Your task to perform on an android device: turn vacation reply on in the gmail app Image 0: 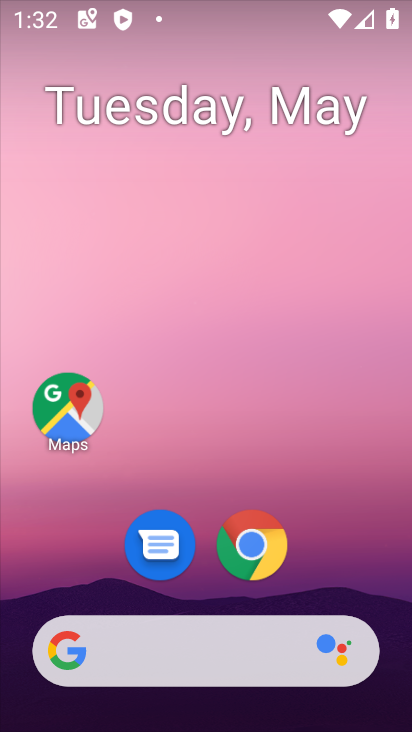
Step 0: drag from (389, 611) to (352, 136)
Your task to perform on an android device: turn vacation reply on in the gmail app Image 1: 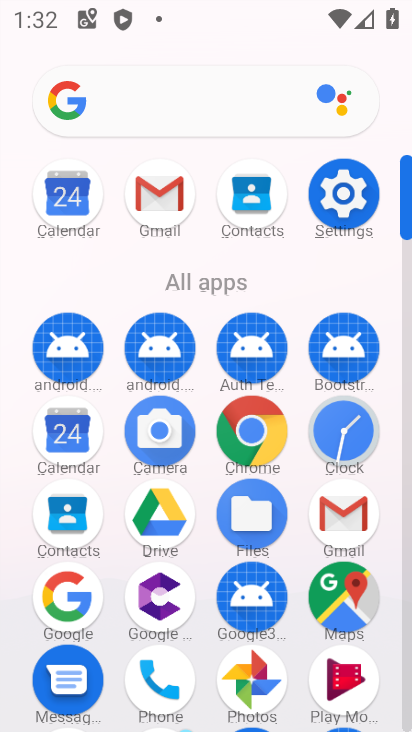
Step 1: click (407, 672)
Your task to perform on an android device: turn vacation reply on in the gmail app Image 2: 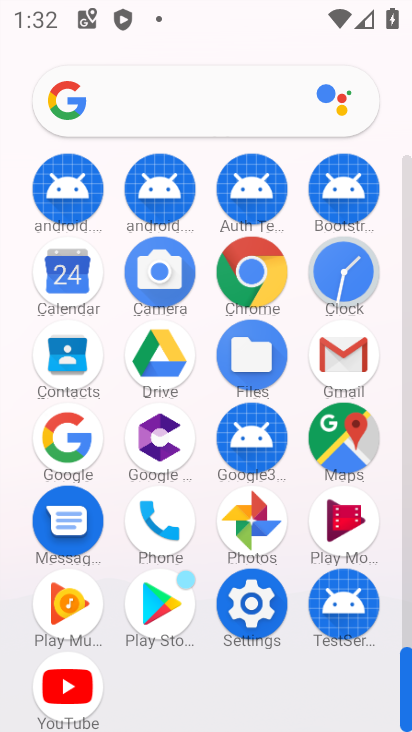
Step 2: click (342, 353)
Your task to perform on an android device: turn vacation reply on in the gmail app Image 3: 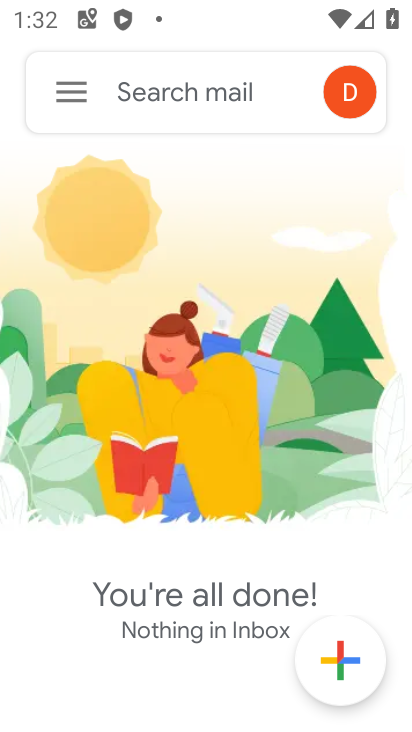
Step 3: click (68, 92)
Your task to perform on an android device: turn vacation reply on in the gmail app Image 4: 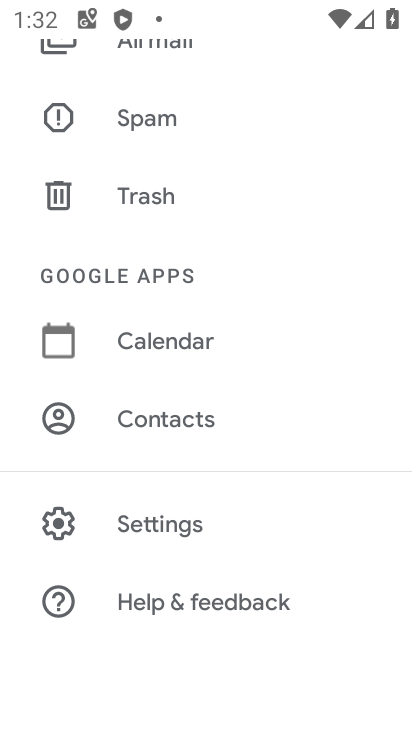
Step 4: click (151, 523)
Your task to perform on an android device: turn vacation reply on in the gmail app Image 5: 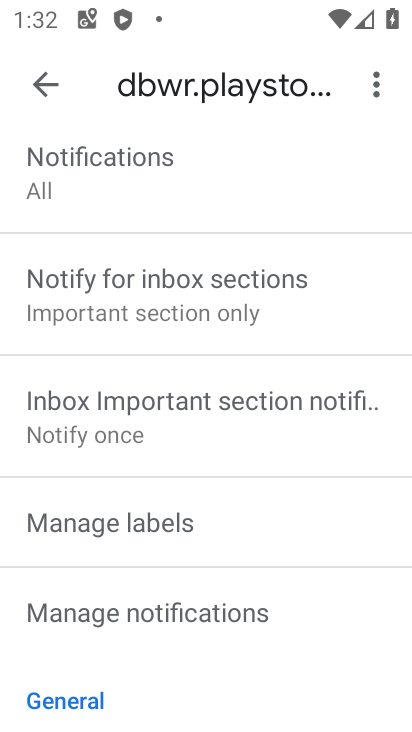
Step 5: task complete